Your task to perform on an android device: When is my next meeting? Image 0: 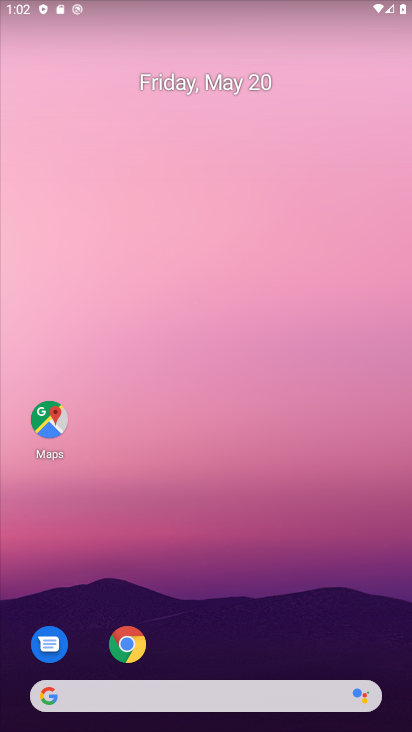
Step 0: click (209, 75)
Your task to perform on an android device: When is my next meeting? Image 1: 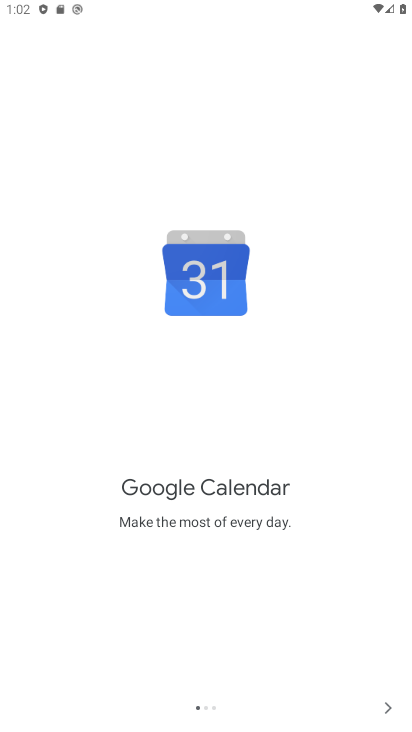
Step 1: click (393, 707)
Your task to perform on an android device: When is my next meeting? Image 2: 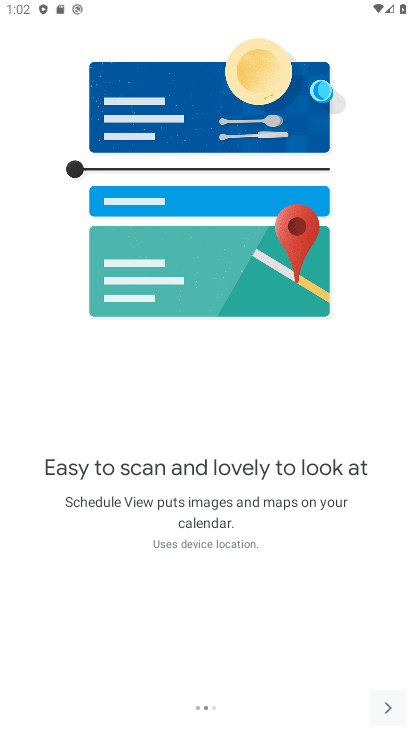
Step 2: click (383, 707)
Your task to perform on an android device: When is my next meeting? Image 3: 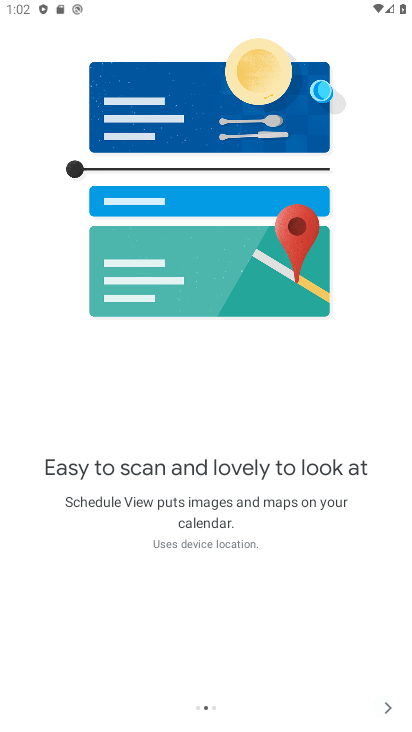
Step 3: click (383, 707)
Your task to perform on an android device: When is my next meeting? Image 4: 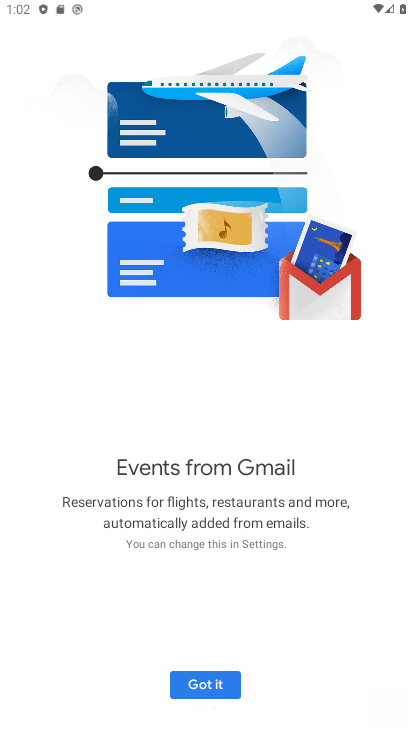
Step 4: click (383, 707)
Your task to perform on an android device: When is my next meeting? Image 5: 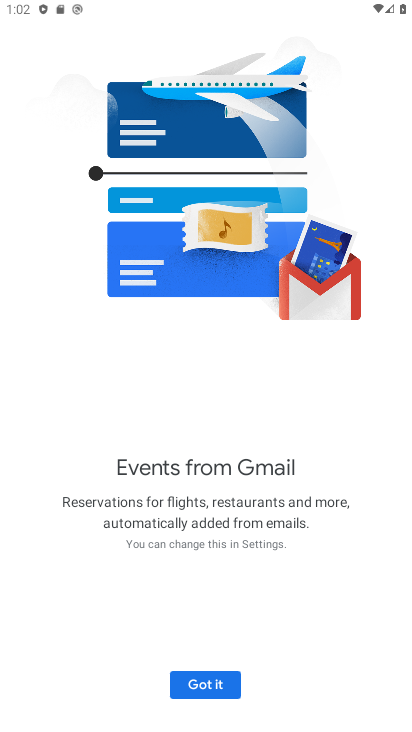
Step 5: click (383, 707)
Your task to perform on an android device: When is my next meeting? Image 6: 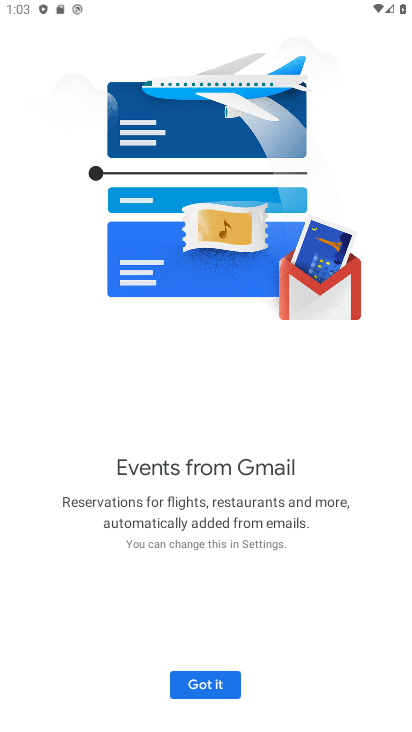
Step 6: click (217, 688)
Your task to perform on an android device: When is my next meeting? Image 7: 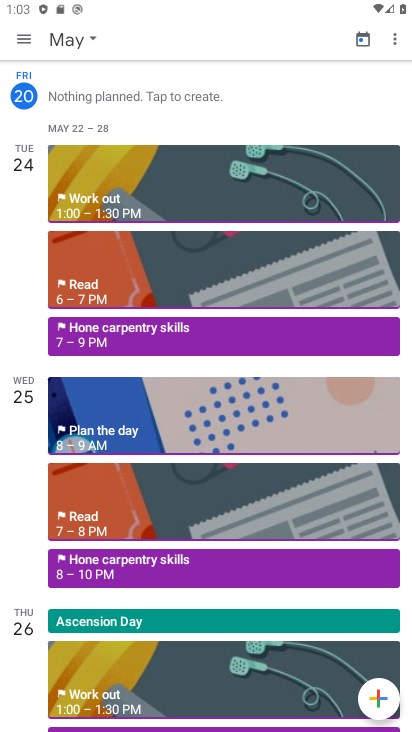
Step 7: click (68, 52)
Your task to perform on an android device: When is my next meeting? Image 8: 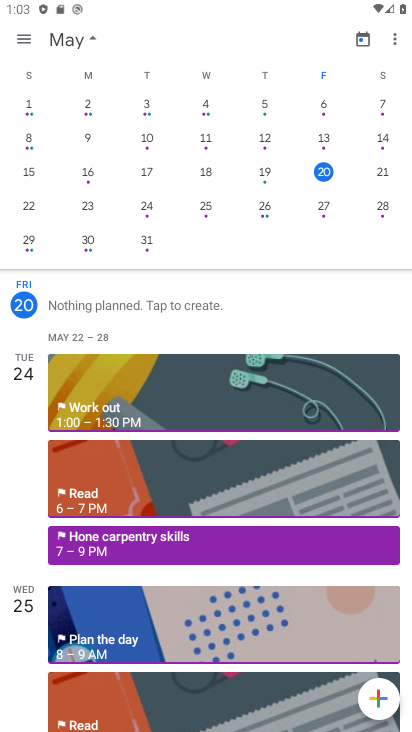
Step 8: task complete